Your task to perform on an android device: What is the recent news? Image 0: 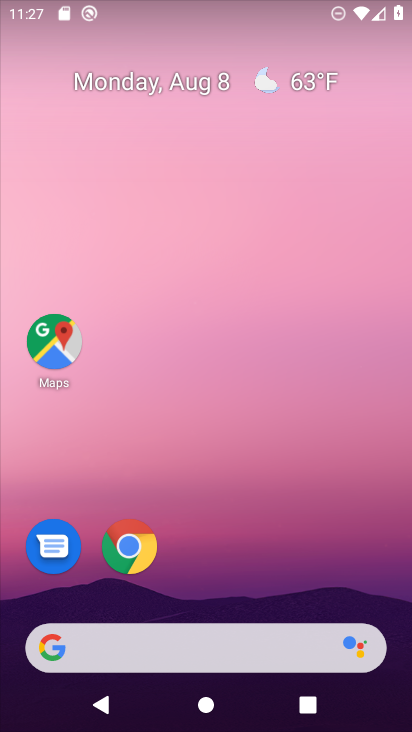
Step 0: drag from (219, 593) to (211, 55)
Your task to perform on an android device: What is the recent news? Image 1: 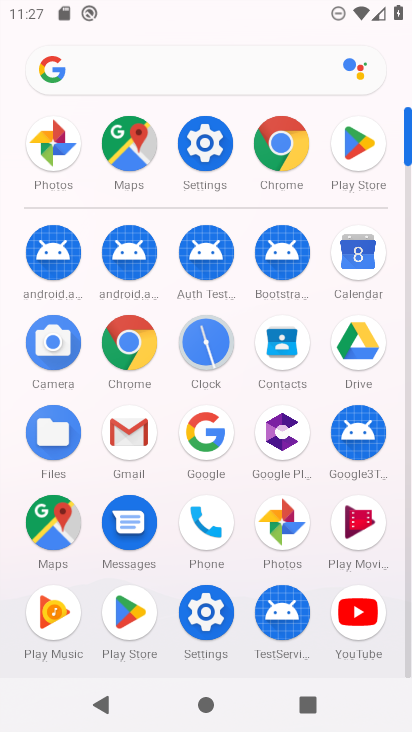
Step 1: task complete